Your task to perform on an android device: change the clock display to digital Image 0: 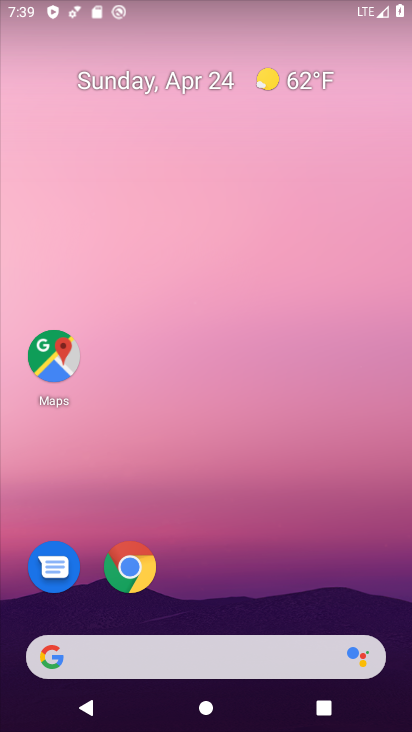
Step 0: drag from (234, 577) to (232, 80)
Your task to perform on an android device: change the clock display to digital Image 1: 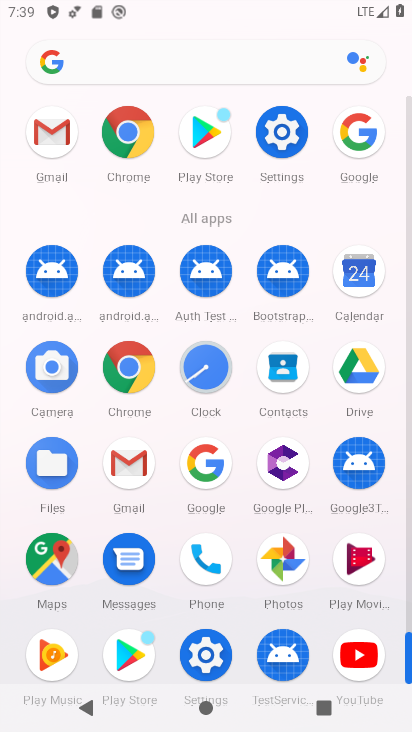
Step 1: click (210, 369)
Your task to perform on an android device: change the clock display to digital Image 2: 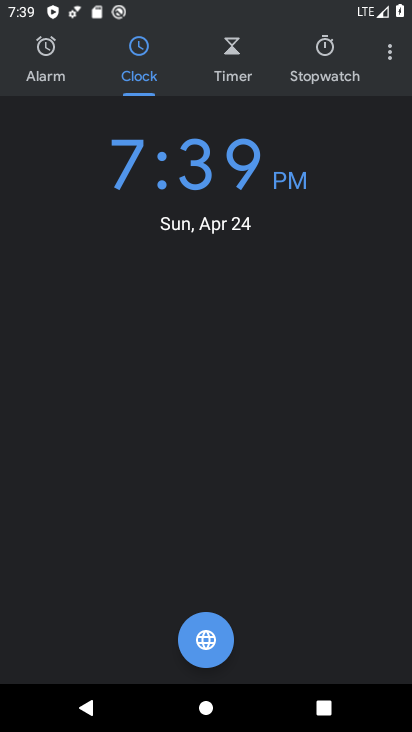
Step 2: click (389, 55)
Your task to perform on an android device: change the clock display to digital Image 3: 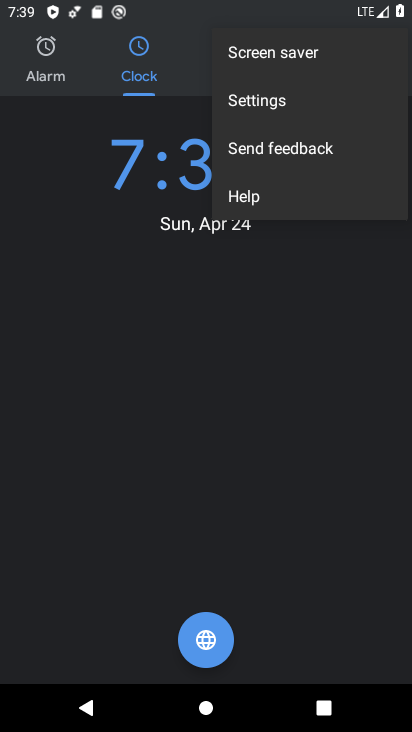
Step 3: click (280, 100)
Your task to perform on an android device: change the clock display to digital Image 4: 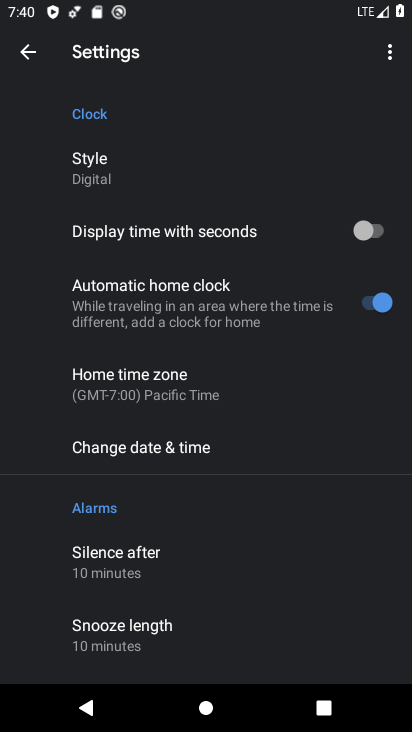
Step 4: click (105, 166)
Your task to perform on an android device: change the clock display to digital Image 5: 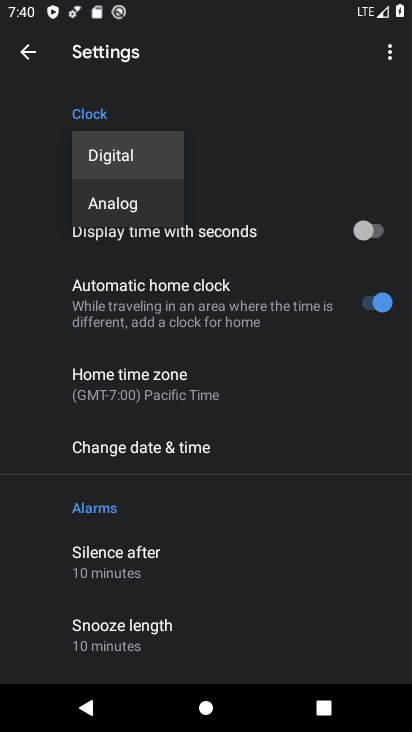
Step 5: click (135, 153)
Your task to perform on an android device: change the clock display to digital Image 6: 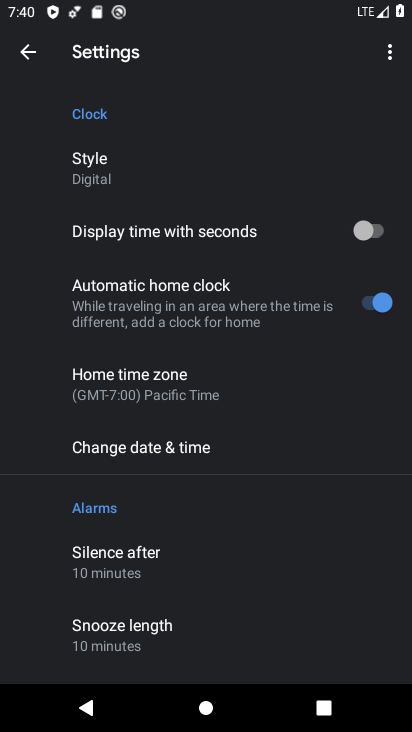
Step 6: task complete